Your task to perform on an android device: Open calendar and show me the first week of next month Image 0: 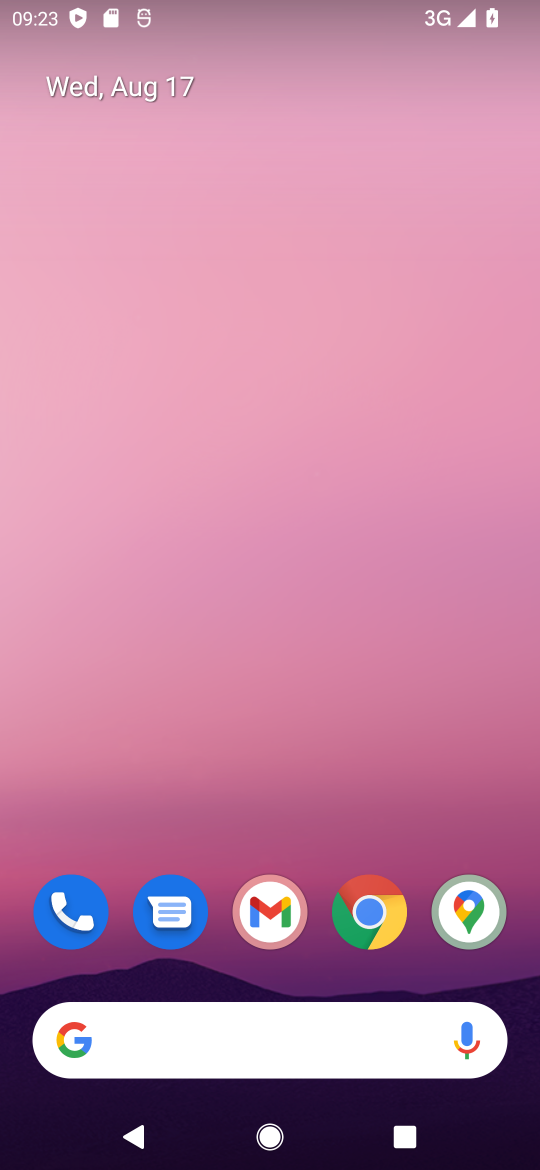
Step 0: drag from (312, 646) to (294, 250)
Your task to perform on an android device: Open calendar and show me the first week of next month Image 1: 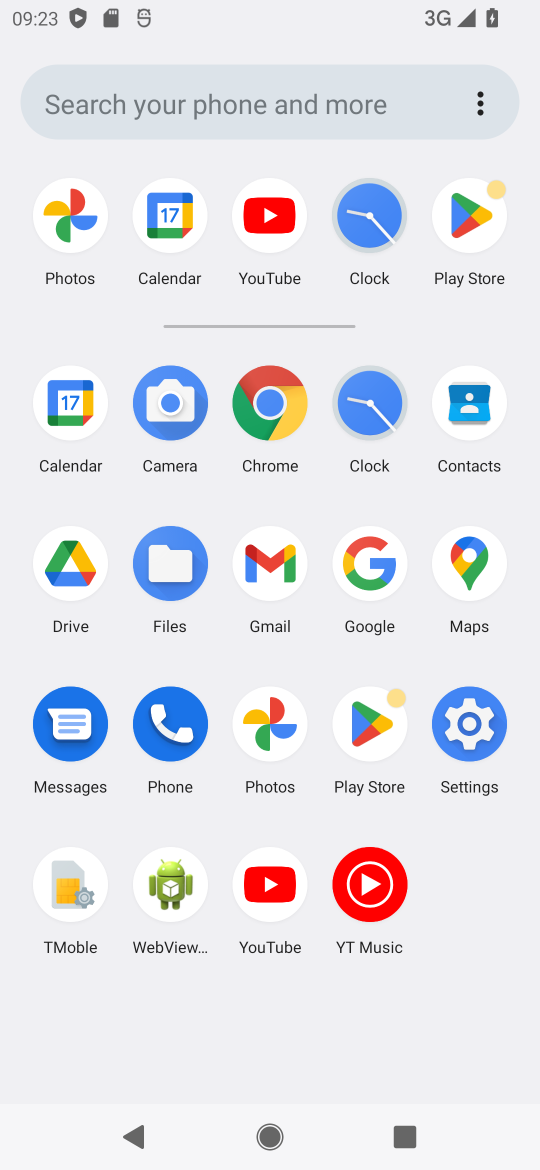
Step 1: click (71, 437)
Your task to perform on an android device: Open calendar and show me the first week of next month Image 2: 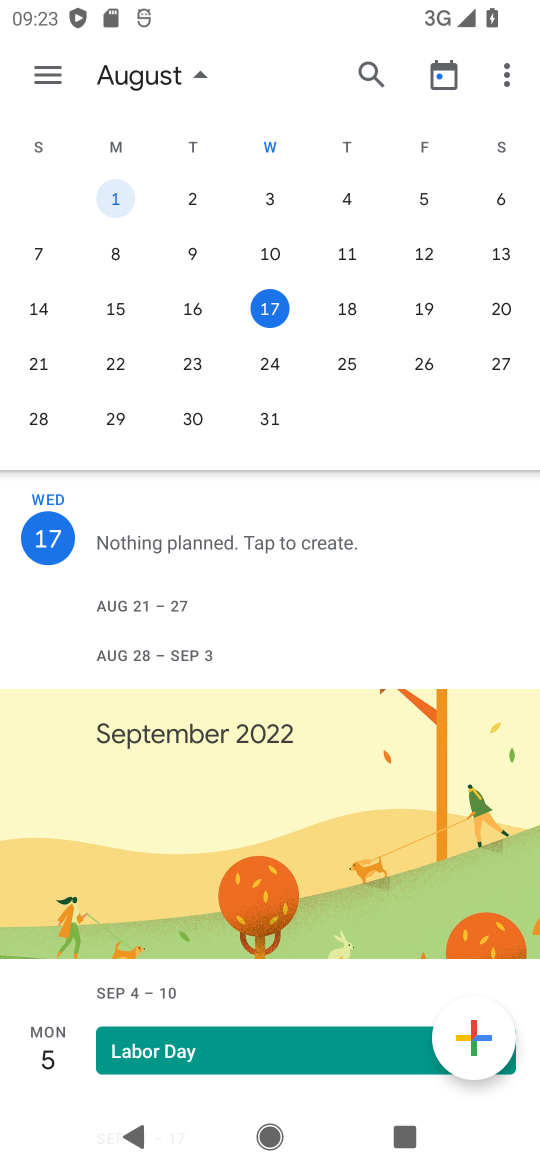
Step 2: drag from (458, 480) to (46, 475)
Your task to perform on an android device: Open calendar and show me the first week of next month Image 3: 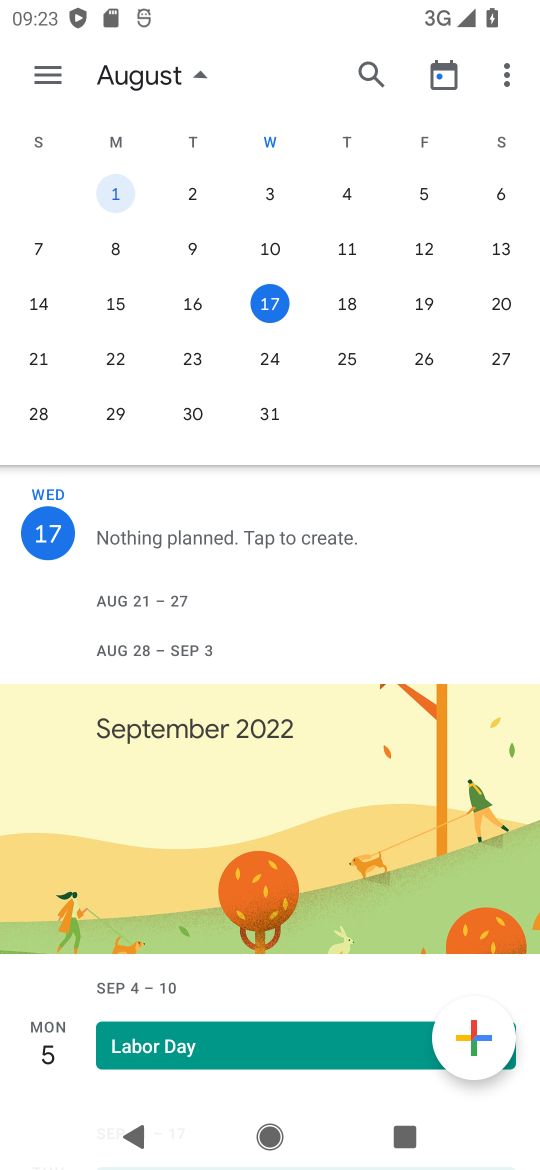
Step 3: drag from (440, 440) to (22, 427)
Your task to perform on an android device: Open calendar and show me the first week of next month Image 4: 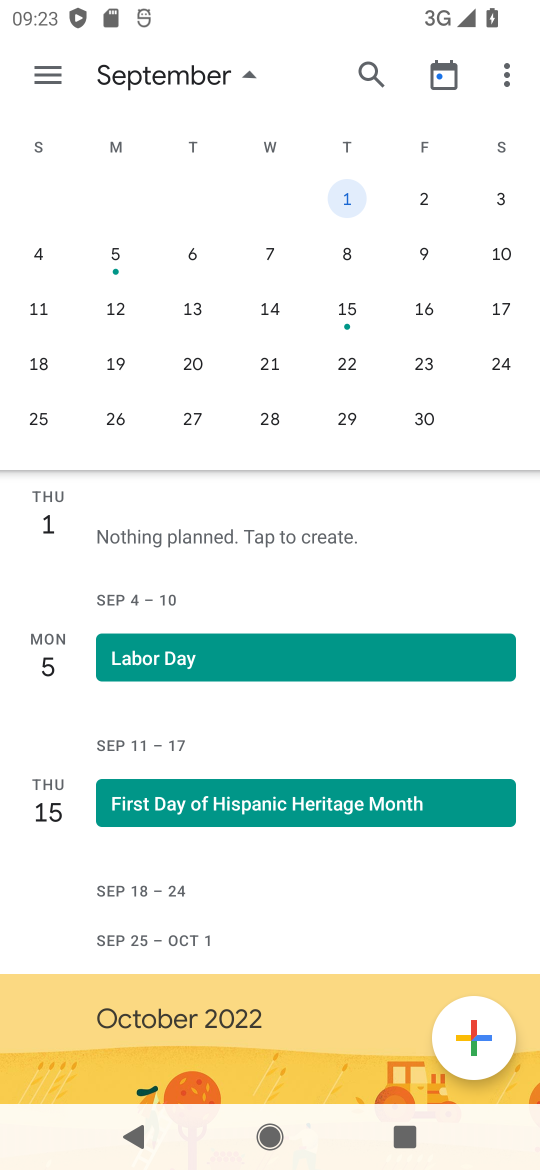
Step 4: click (331, 198)
Your task to perform on an android device: Open calendar and show me the first week of next month Image 5: 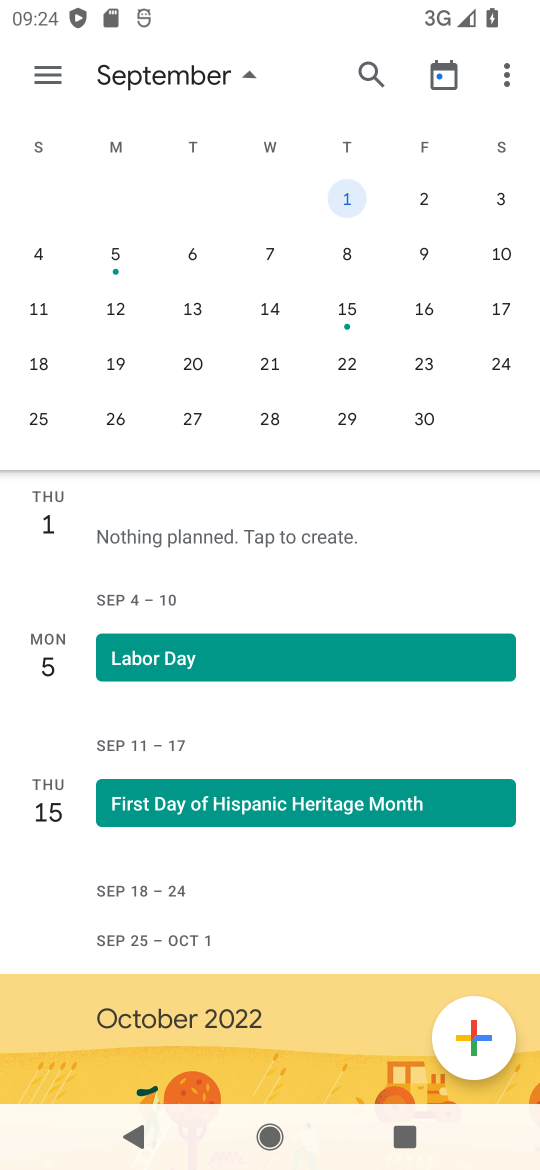
Step 5: task complete